Your task to perform on an android device: Open Yahoo.com Image 0: 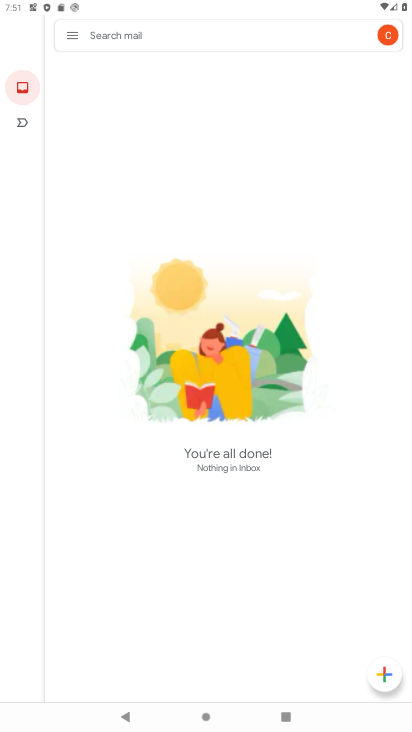
Step 0: press home button
Your task to perform on an android device: Open Yahoo.com Image 1: 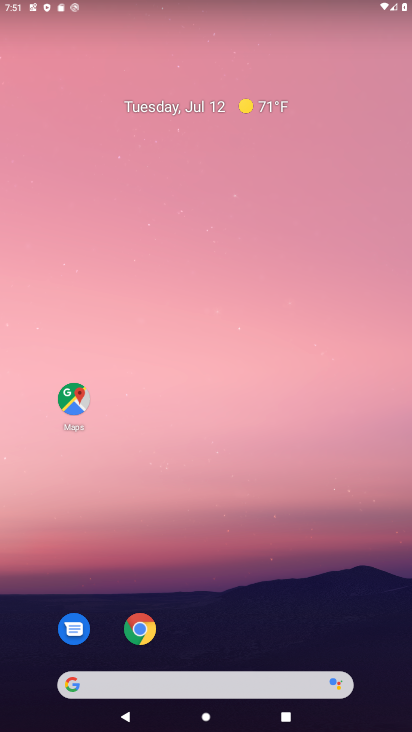
Step 1: click (140, 627)
Your task to perform on an android device: Open Yahoo.com Image 2: 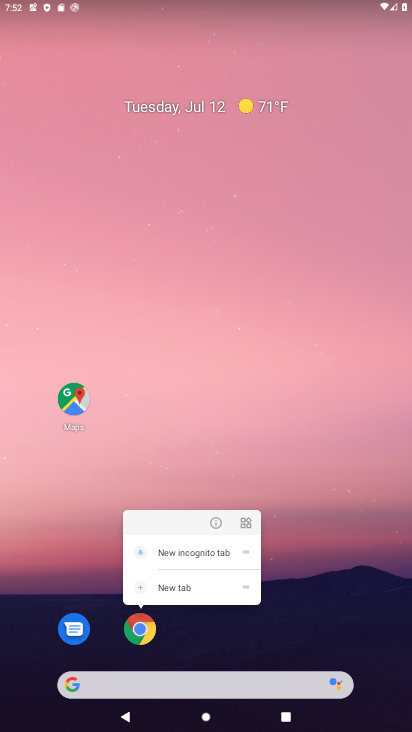
Step 2: click (129, 624)
Your task to perform on an android device: Open Yahoo.com Image 3: 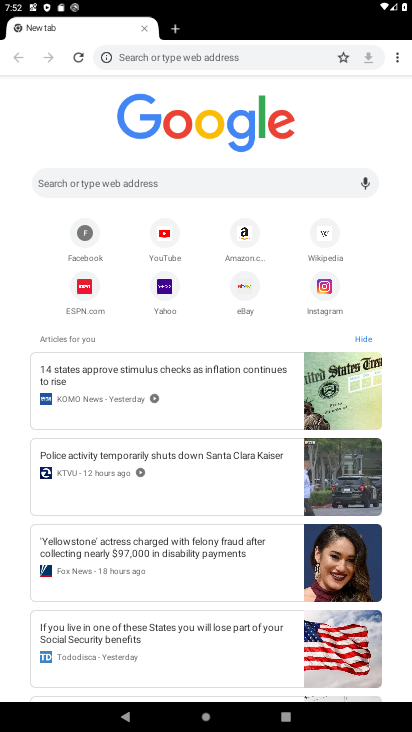
Step 3: click (177, 178)
Your task to perform on an android device: Open Yahoo.com Image 4: 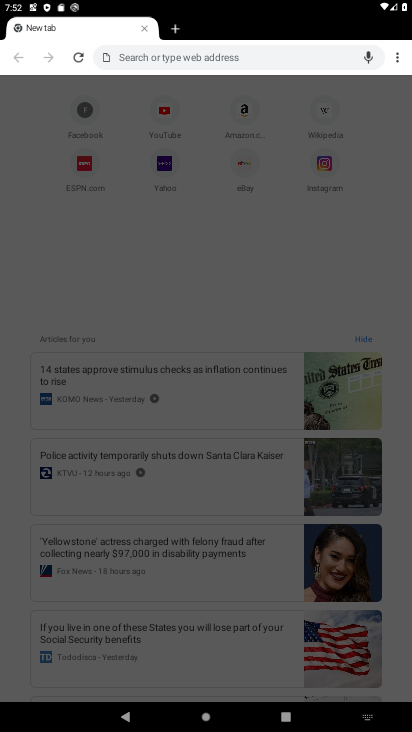
Step 4: type "Yahoo.com"
Your task to perform on an android device: Open Yahoo.com Image 5: 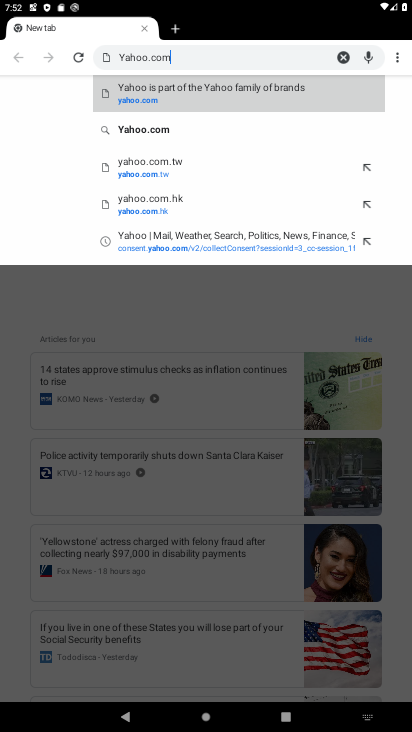
Step 5: click (135, 127)
Your task to perform on an android device: Open Yahoo.com Image 6: 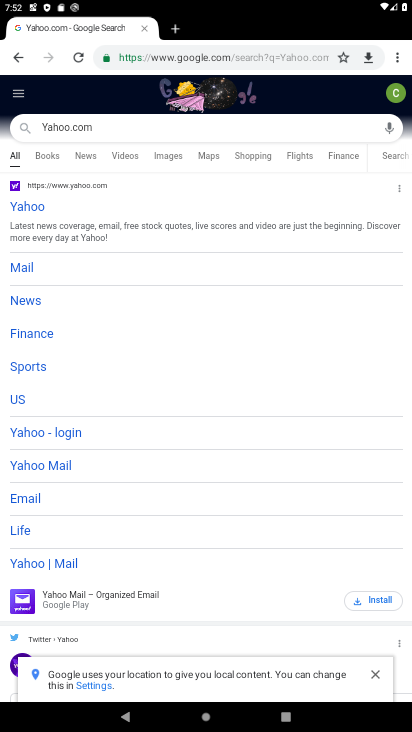
Step 6: task complete